Your task to perform on an android device: Search for sushi restaurants on Maps Image 0: 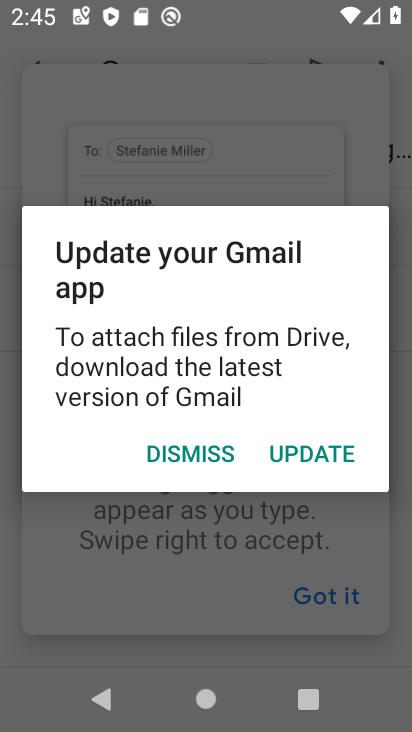
Step 0: press home button
Your task to perform on an android device: Search for sushi restaurants on Maps Image 1: 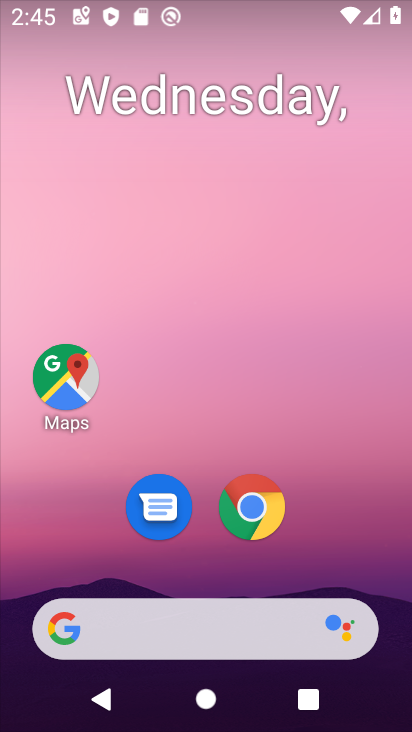
Step 1: click (81, 369)
Your task to perform on an android device: Search for sushi restaurants on Maps Image 2: 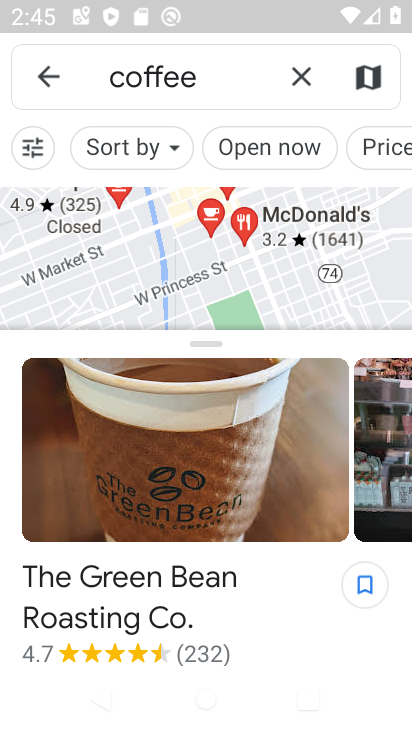
Step 2: click (302, 72)
Your task to perform on an android device: Search for sushi restaurants on Maps Image 3: 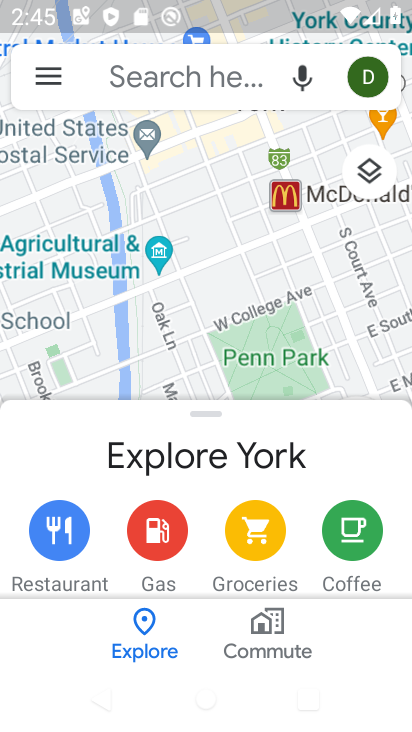
Step 3: click (197, 79)
Your task to perform on an android device: Search for sushi restaurants on Maps Image 4: 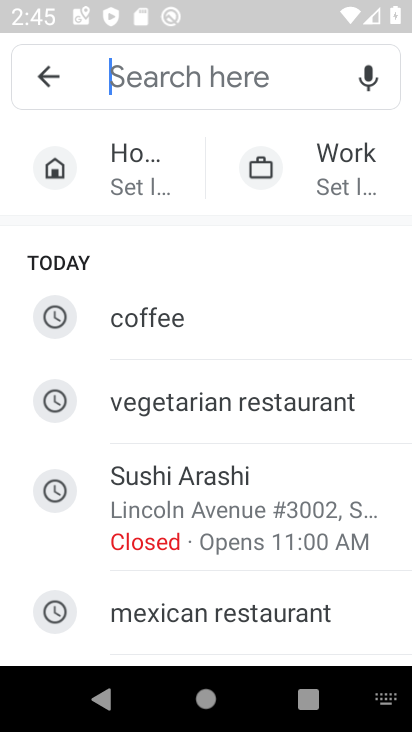
Step 4: drag from (287, 590) to (298, 305)
Your task to perform on an android device: Search for sushi restaurants on Maps Image 5: 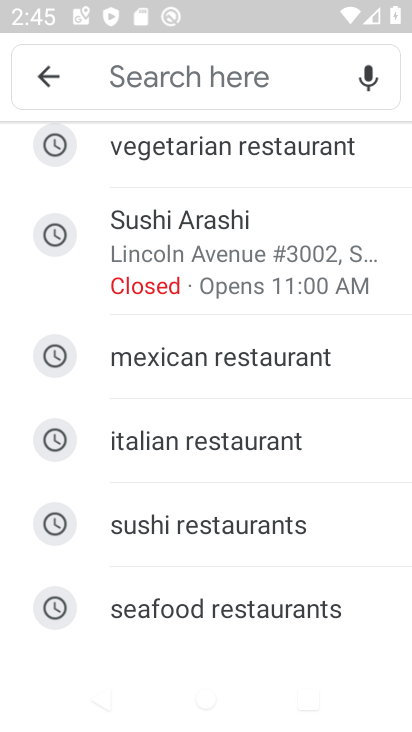
Step 5: click (289, 517)
Your task to perform on an android device: Search for sushi restaurants on Maps Image 6: 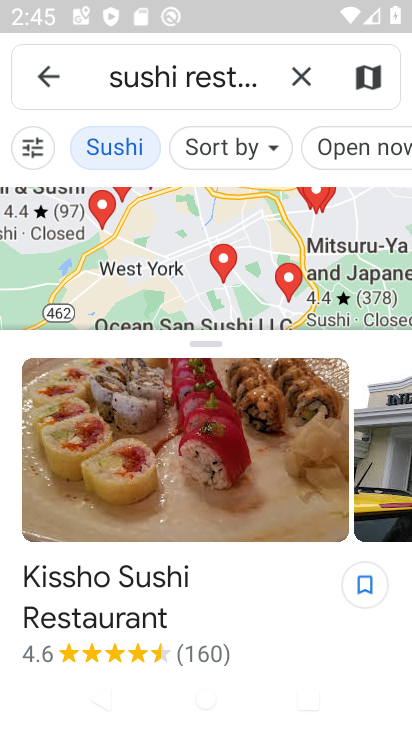
Step 6: task complete